Your task to perform on an android device: Go to settings Image 0: 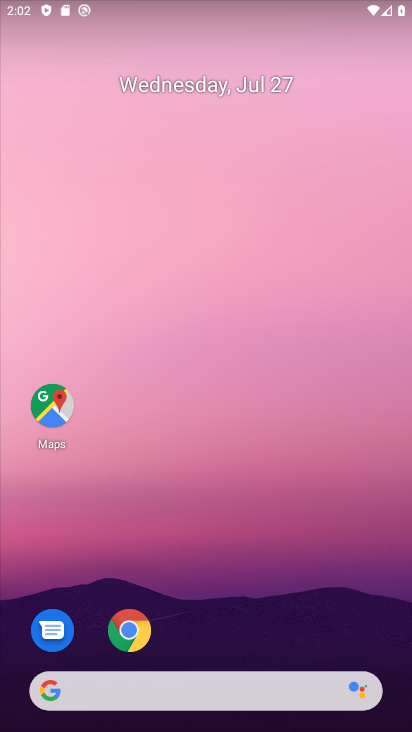
Step 0: drag from (239, 617) to (174, 20)
Your task to perform on an android device: Go to settings Image 1: 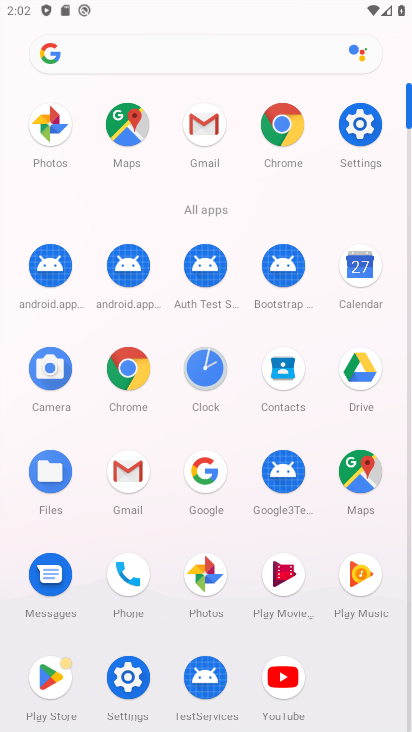
Step 1: click (357, 138)
Your task to perform on an android device: Go to settings Image 2: 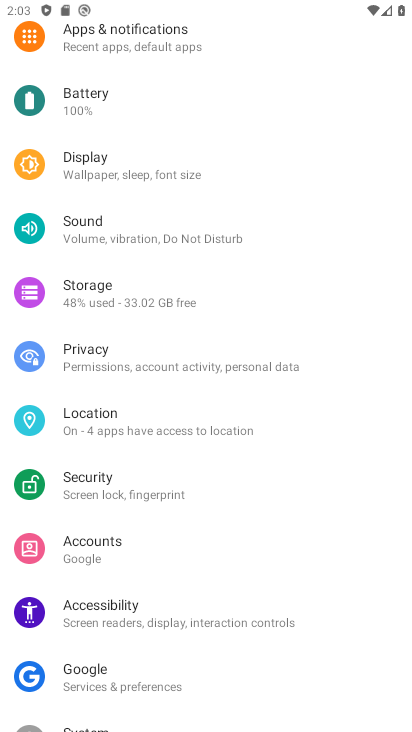
Step 2: task complete